Your task to perform on an android device: find snoozed emails in the gmail app Image 0: 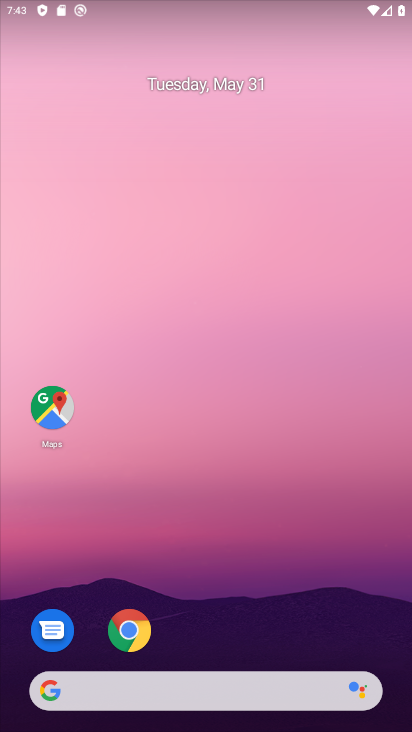
Step 0: drag from (214, 630) to (214, 242)
Your task to perform on an android device: find snoozed emails in the gmail app Image 1: 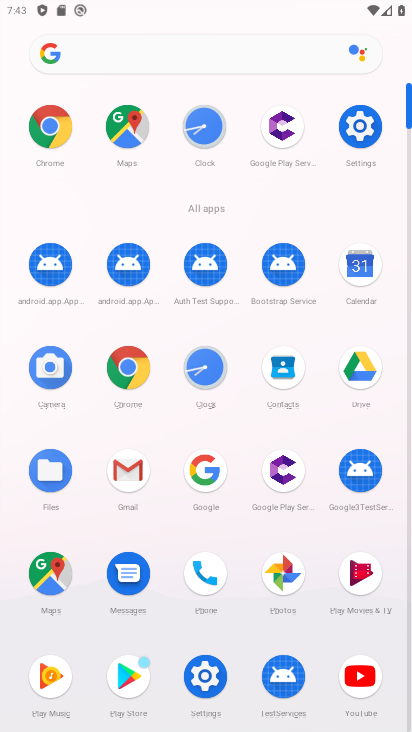
Step 1: click (125, 480)
Your task to perform on an android device: find snoozed emails in the gmail app Image 2: 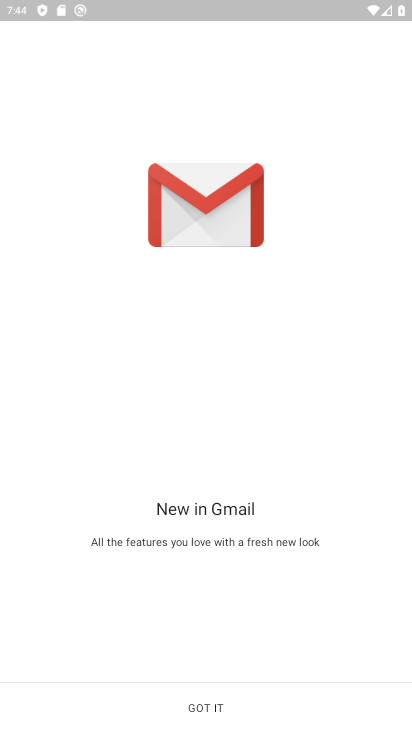
Step 2: click (197, 708)
Your task to perform on an android device: find snoozed emails in the gmail app Image 3: 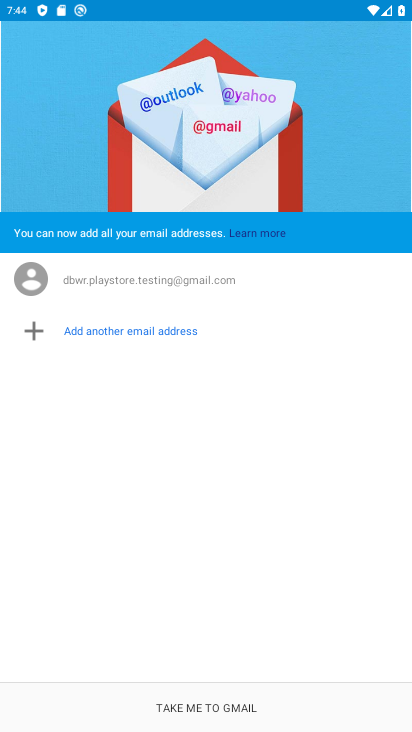
Step 3: click (197, 708)
Your task to perform on an android device: find snoozed emails in the gmail app Image 4: 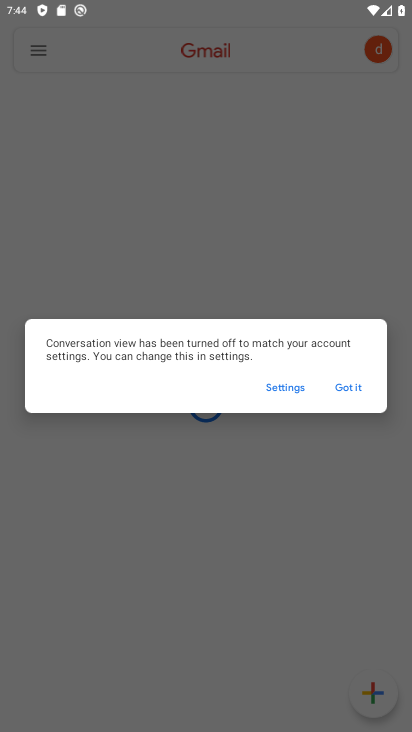
Step 4: click (348, 384)
Your task to perform on an android device: find snoozed emails in the gmail app Image 5: 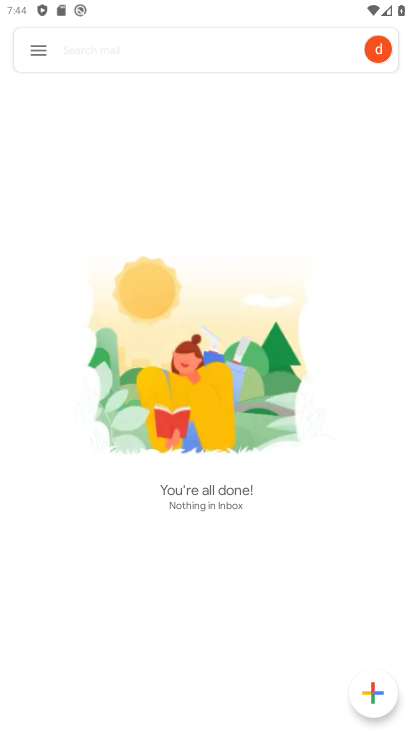
Step 5: click (44, 50)
Your task to perform on an android device: find snoozed emails in the gmail app Image 6: 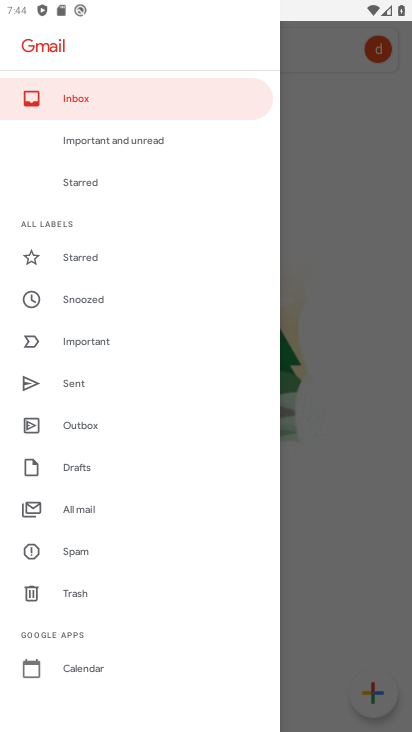
Step 6: click (78, 300)
Your task to perform on an android device: find snoozed emails in the gmail app Image 7: 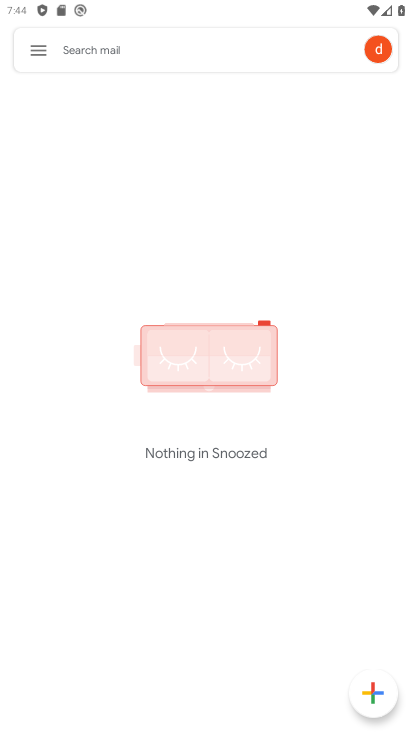
Step 7: task complete